Your task to perform on an android device: Search for Italian restaurants on Maps Image 0: 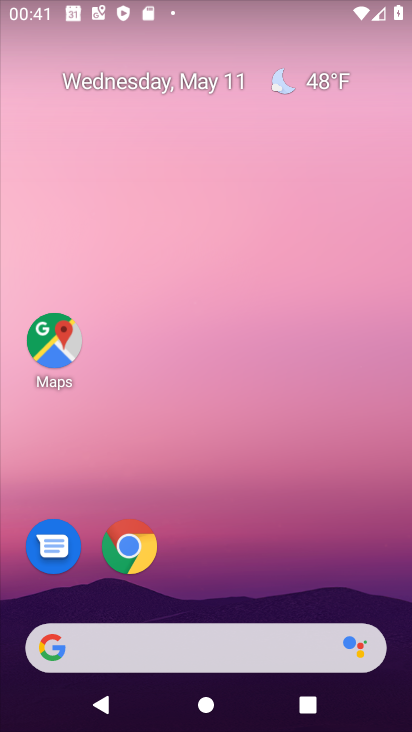
Step 0: click (49, 345)
Your task to perform on an android device: Search for Italian restaurants on Maps Image 1: 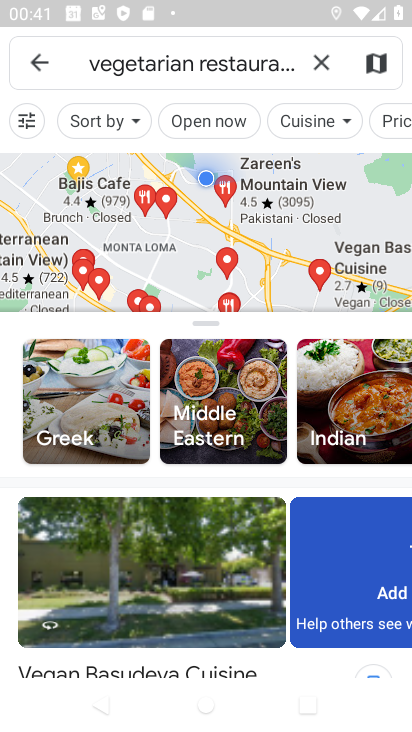
Step 1: click (315, 57)
Your task to perform on an android device: Search for Italian restaurants on Maps Image 2: 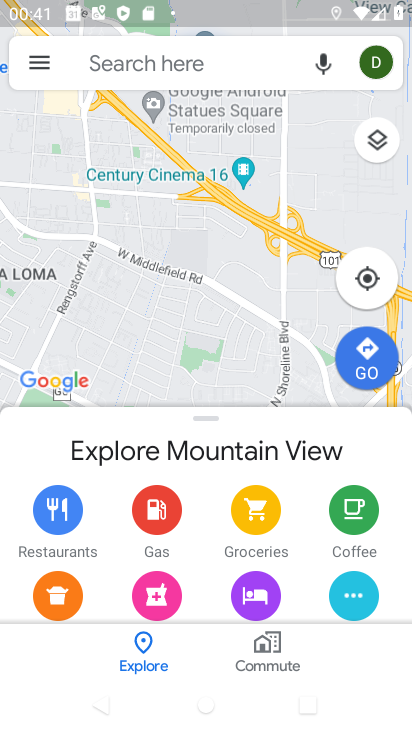
Step 2: click (247, 68)
Your task to perform on an android device: Search for Italian restaurants on Maps Image 3: 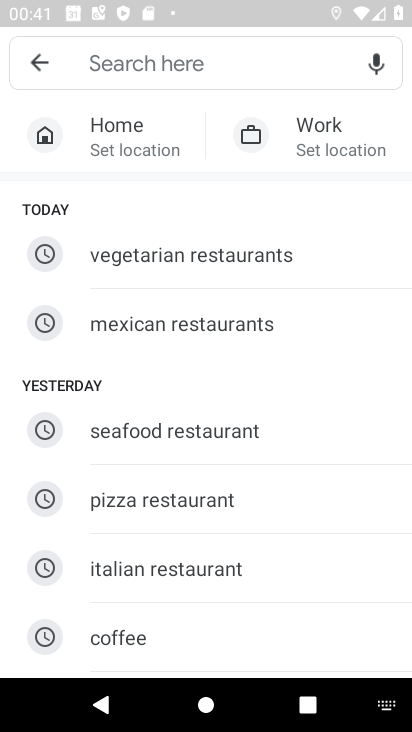
Step 3: type "Italian restaurants"
Your task to perform on an android device: Search for Italian restaurants on Maps Image 4: 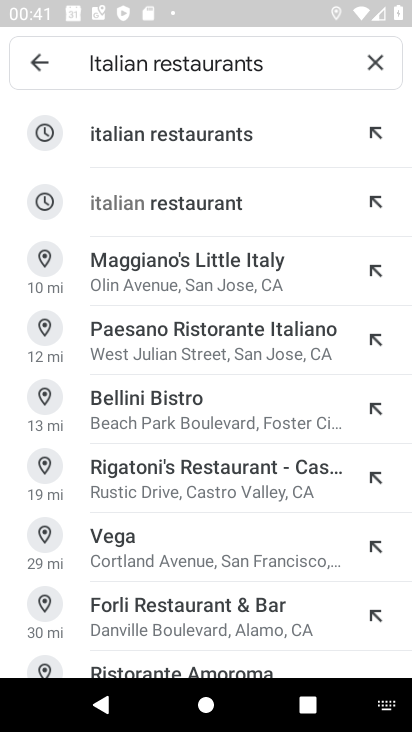
Step 4: click (260, 136)
Your task to perform on an android device: Search for Italian restaurants on Maps Image 5: 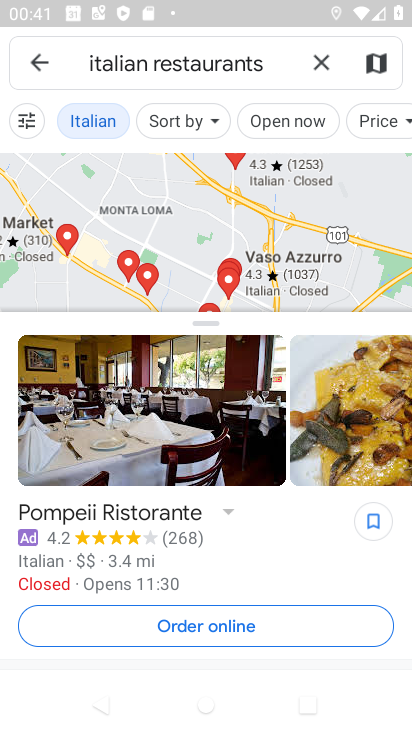
Step 5: task complete